Your task to perform on an android device: create a new album in the google photos Image 0: 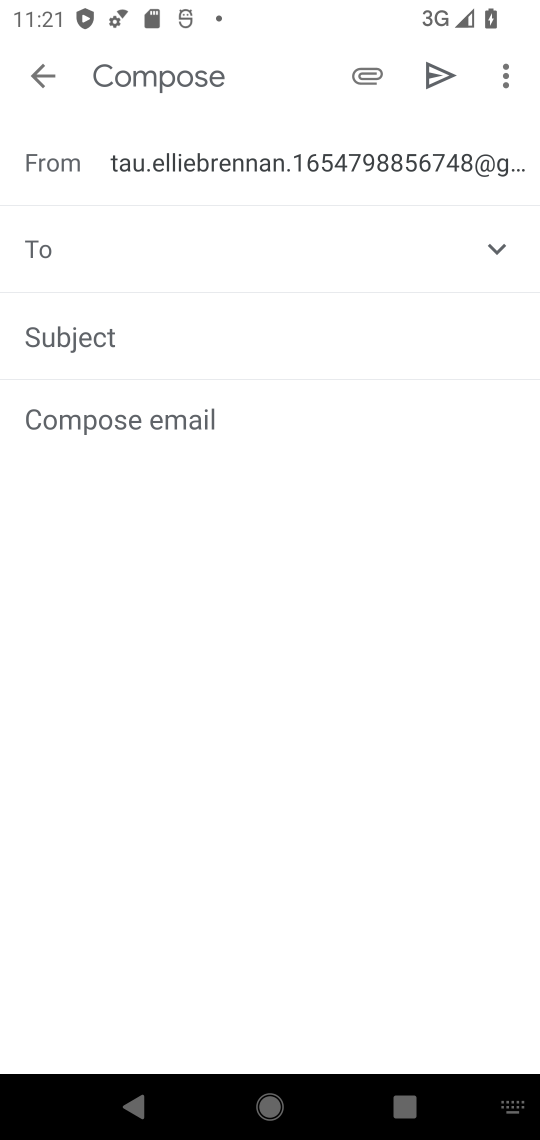
Step 0: press home button
Your task to perform on an android device: create a new album in the google photos Image 1: 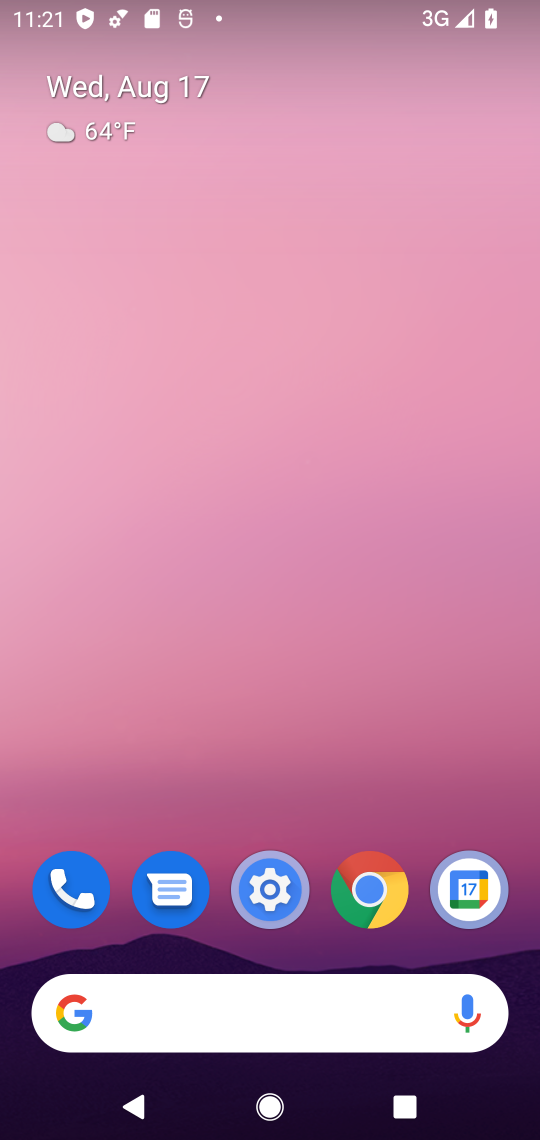
Step 1: drag from (286, 806) to (366, 0)
Your task to perform on an android device: create a new album in the google photos Image 2: 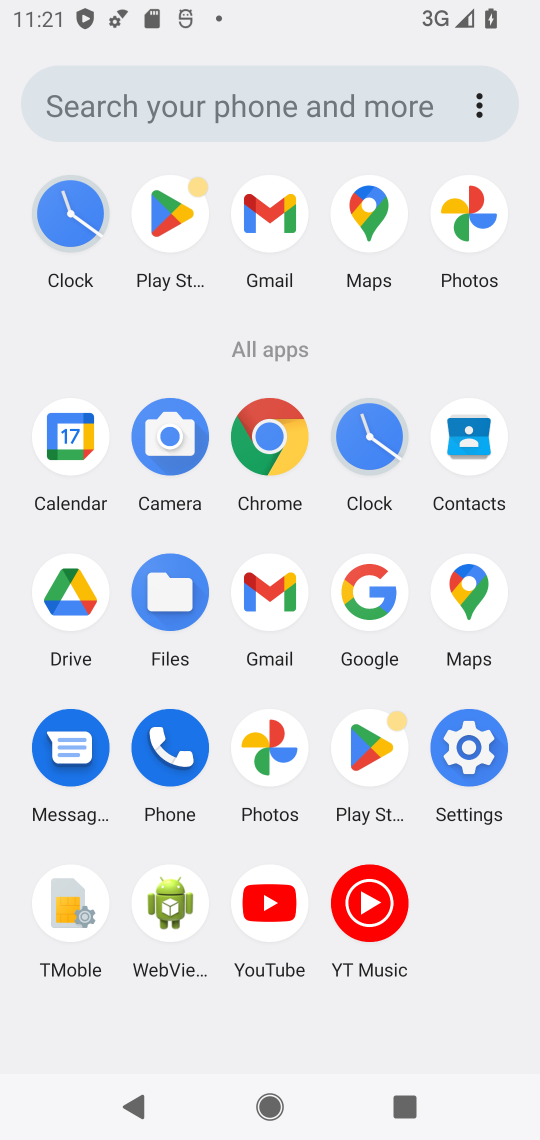
Step 2: click (277, 736)
Your task to perform on an android device: create a new album in the google photos Image 3: 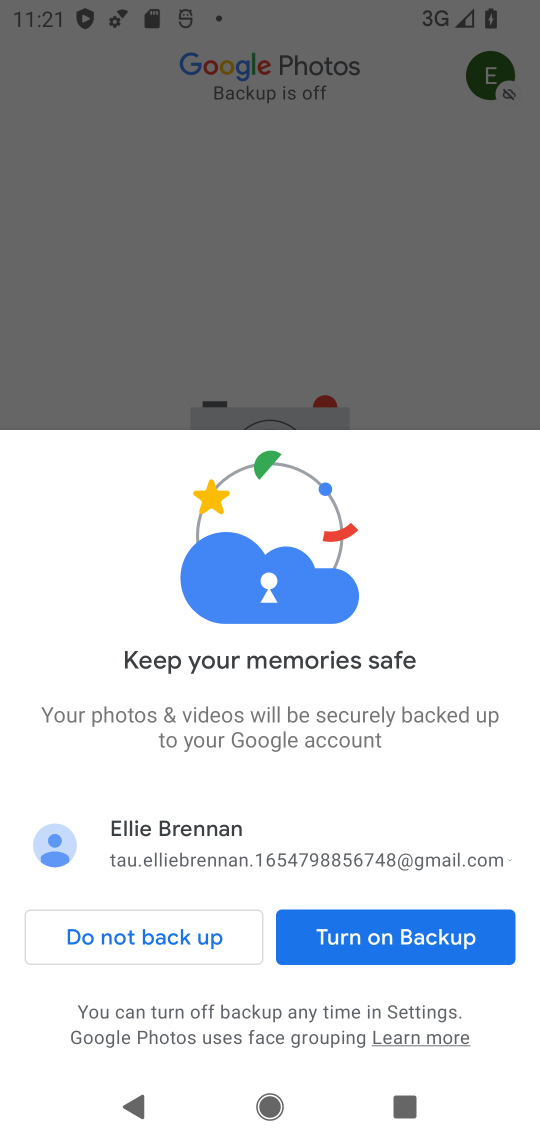
Step 3: click (486, 928)
Your task to perform on an android device: create a new album in the google photos Image 4: 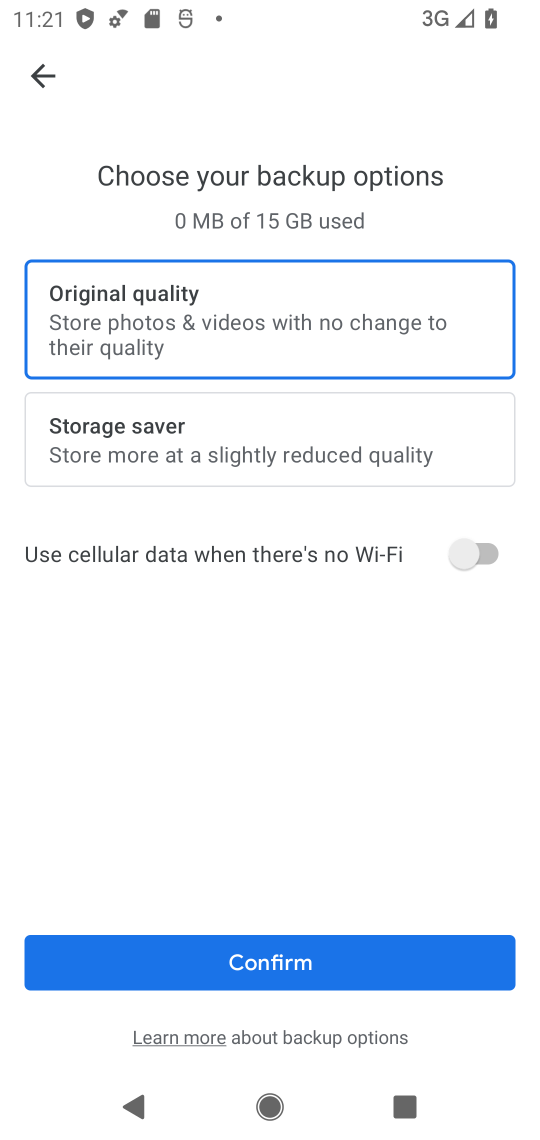
Step 4: click (478, 942)
Your task to perform on an android device: create a new album in the google photos Image 5: 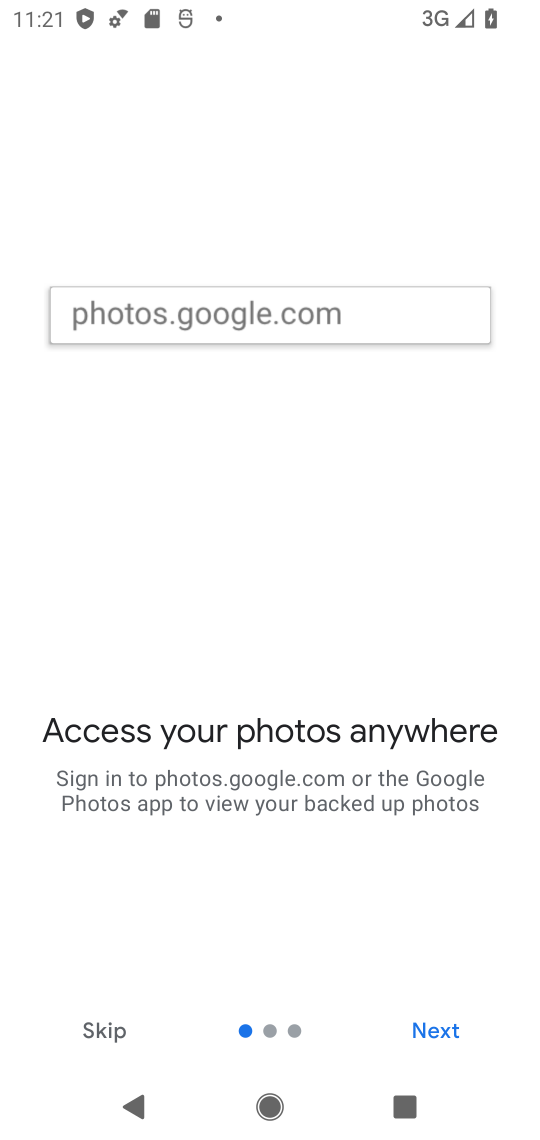
Step 5: click (439, 1030)
Your task to perform on an android device: create a new album in the google photos Image 6: 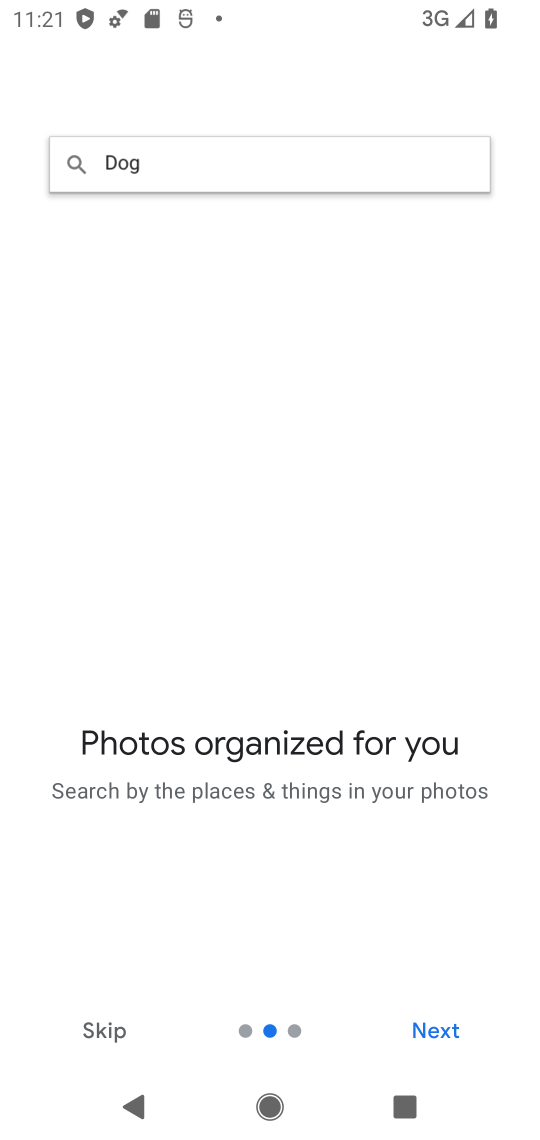
Step 6: click (439, 1028)
Your task to perform on an android device: create a new album in the google photos Image 7: 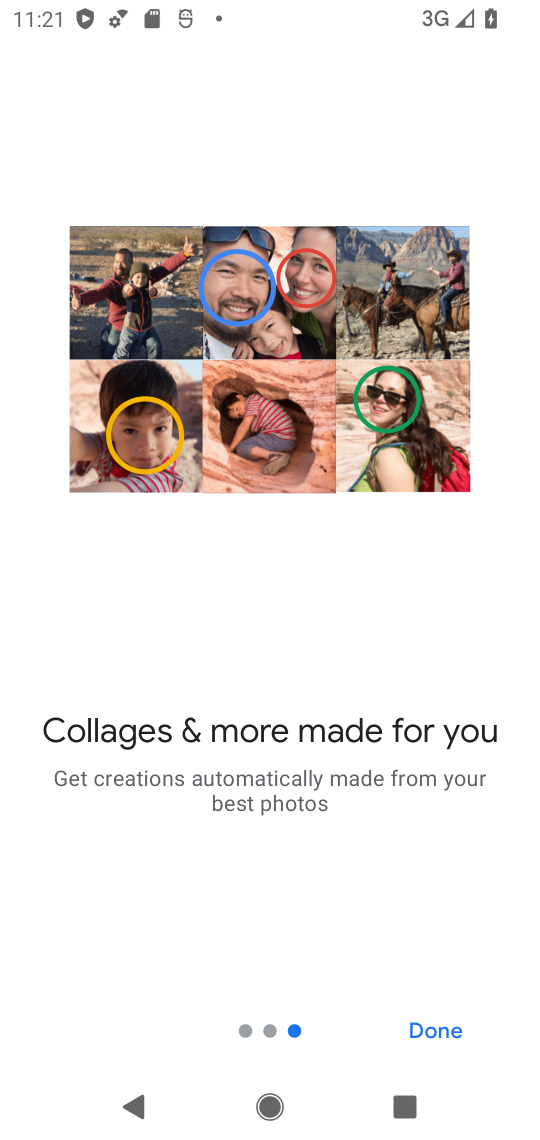
Step 7: click (439, 1020)
Your task to perform on an android device: create a new album in the google photos Image 8: 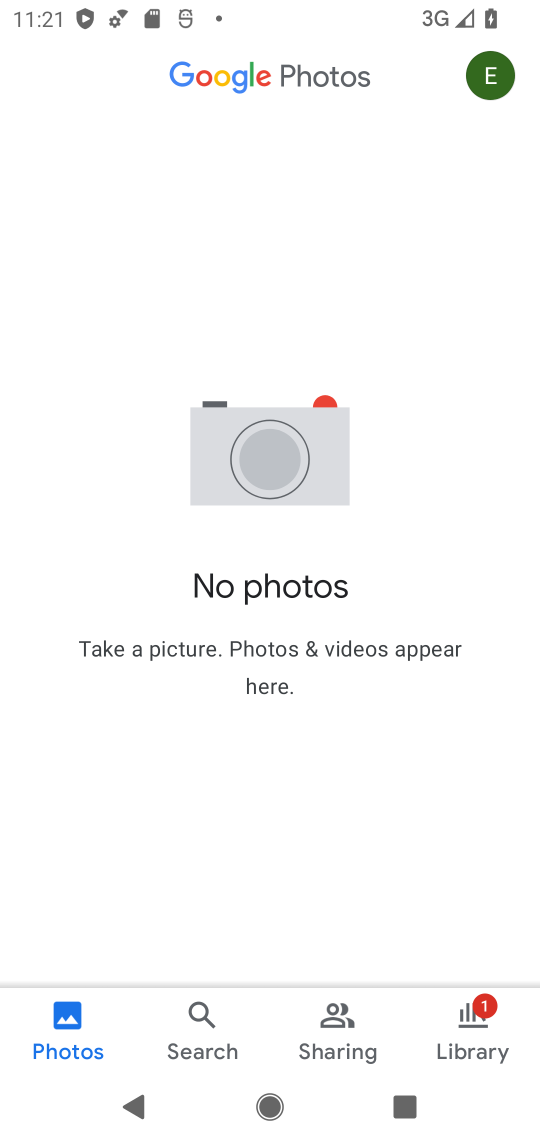
Step 8: click (470, 1014)
Your task to perform on an android device: create a new album in the google photos Image 9: 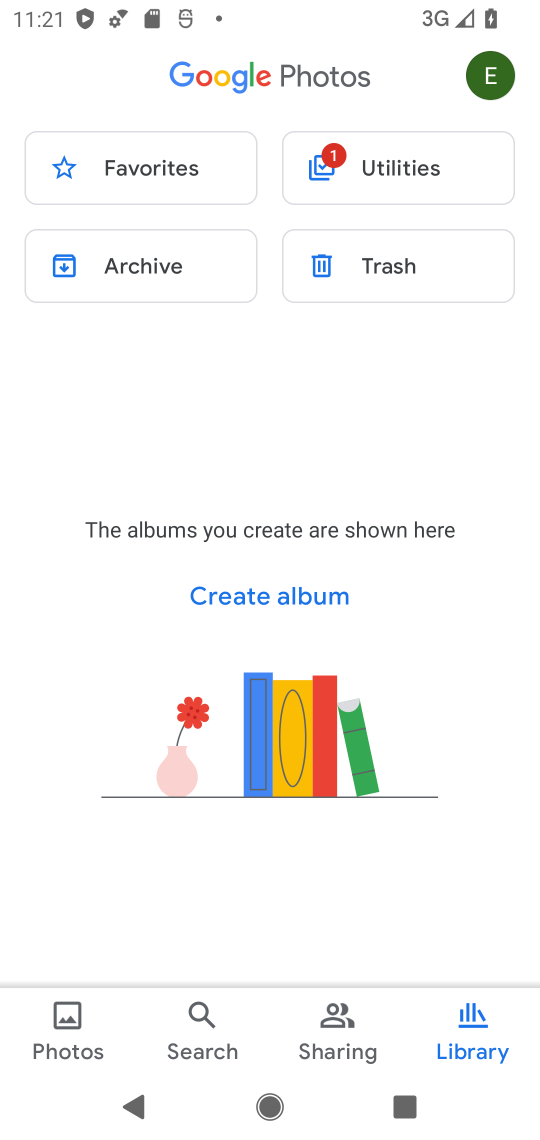
Step 9: click (321, 581)
Your task to perform on an android device: create a new album in the google photos Image 10: 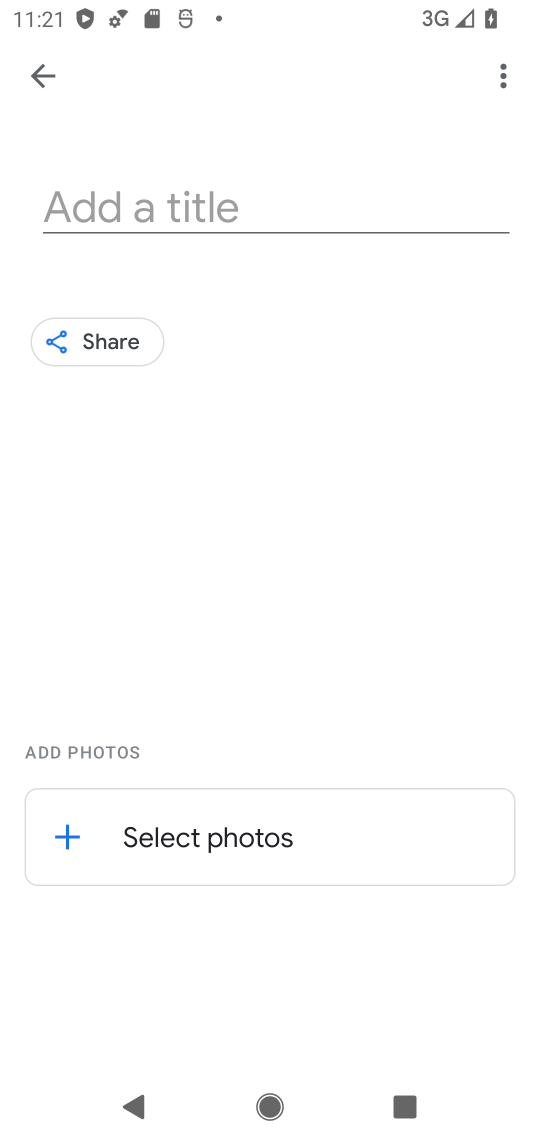
Step 10: click (272, 200)
Your task to perform on an android device: create a new album in the google photos Image 11: 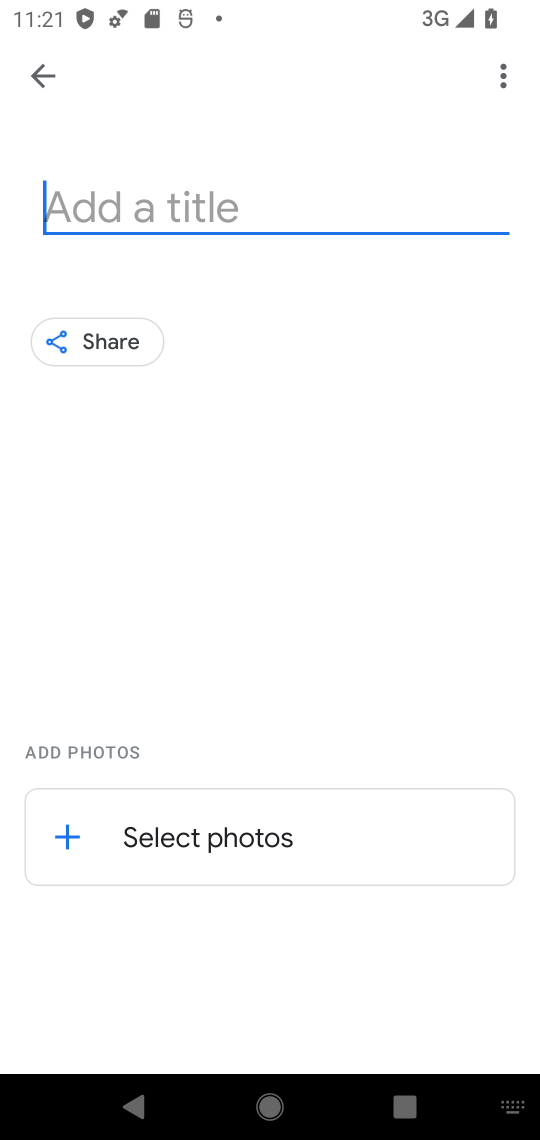
Step 11: type "Indraprastha"
Your task to perform on an android device: create a new album in the google photos Image 12: 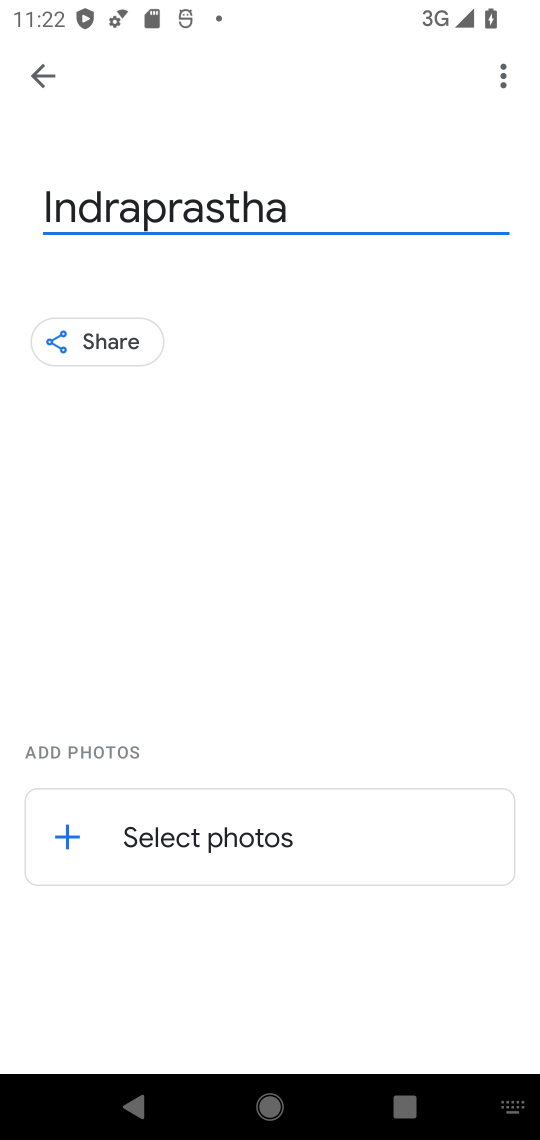
Step 12: click (69, 833)
Your task to perform on an android device: create a new album in the google photos Image 13: 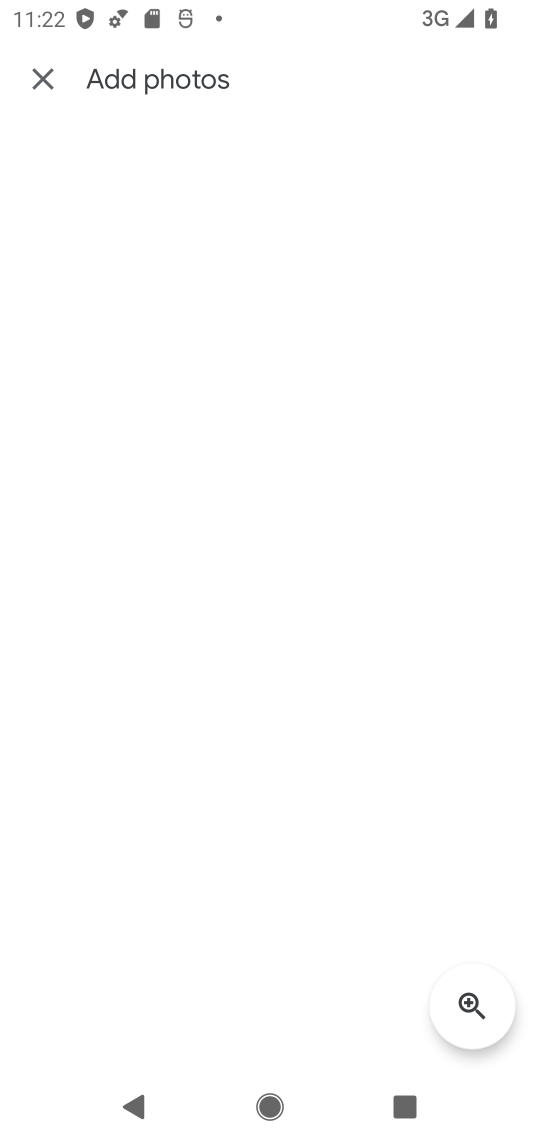
Step 13: task complete